Your task to perform on an android device: Open Google Chrome and click the shortcut for Amazon.com Image 0: 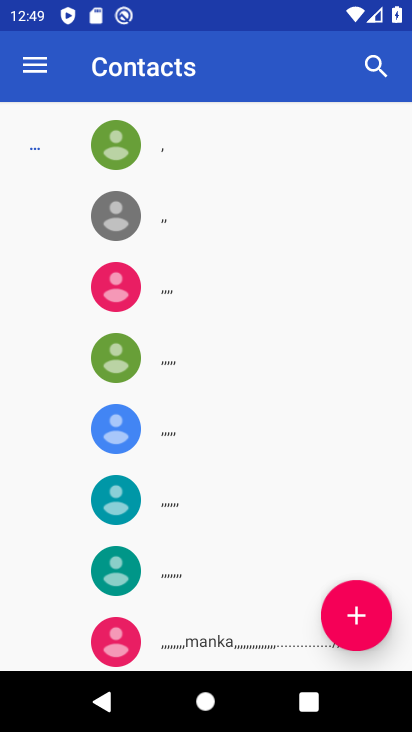
Step 0: press home button
Your task to perform on an android device: Open Google Chrome and click the shortcut for Amazon.com Image 1: 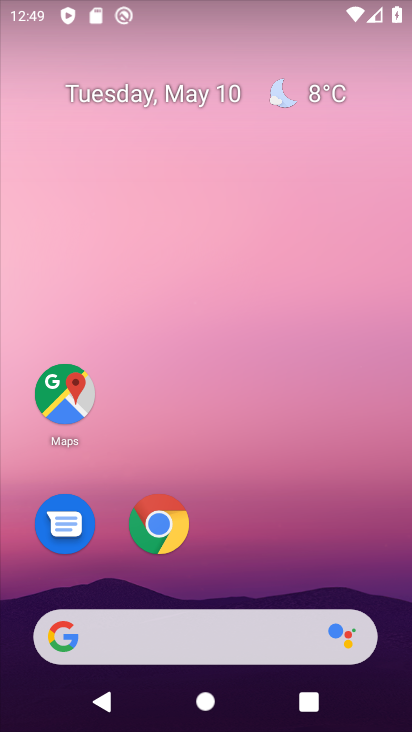
Step 1: click (168, 524)
Your task to perform on an android device: Open Google Chrome and click the shortcut for Amazon.com Image 2: 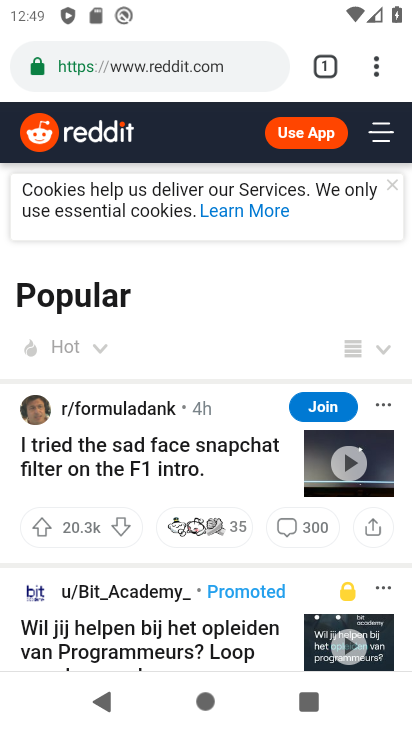
Step 2: click (374, 59)
Your task to perform on an android device: Open Google Chrome and click the shortcut for Amazon.com Image 3: 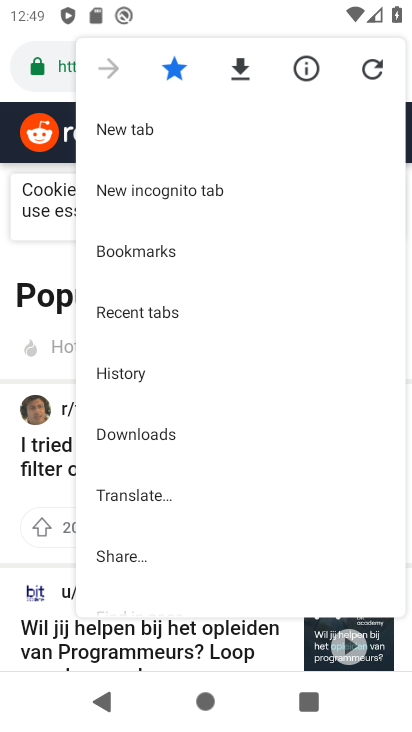
Step 3: click (252, 125)
Your task to perform on an android device: Open Google Chrome and click the shortcut for Amazon.com Image 4: 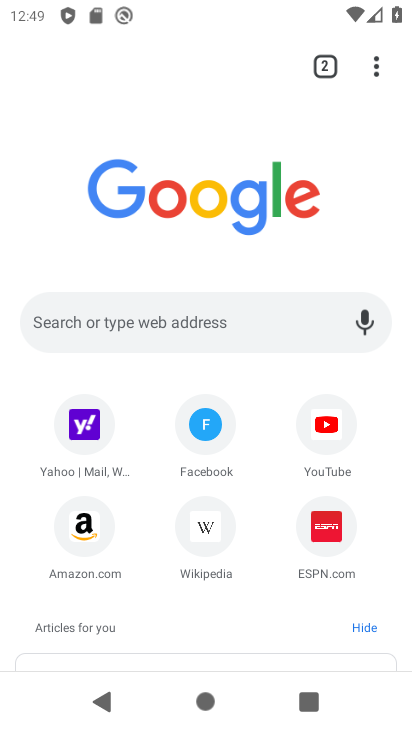
Step 4: click (86, 523)
Your task to perform on an android device: Open Google Chrome and click the shortcut for Amazon.com Image 5: 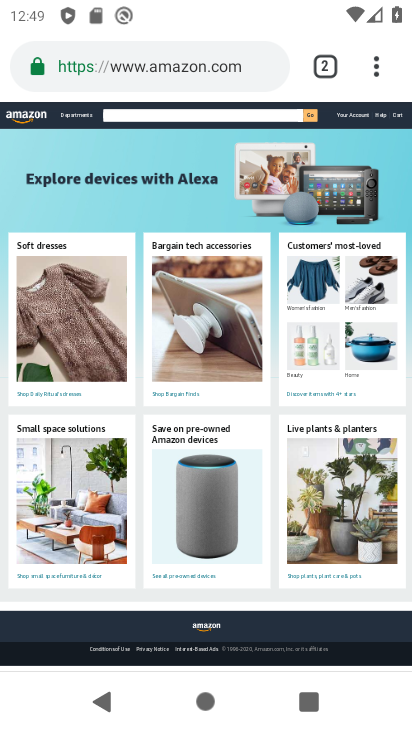
Step 5: task complete